Your task to perform on an android device: Open calendar and show me the third week of next month Image 0: 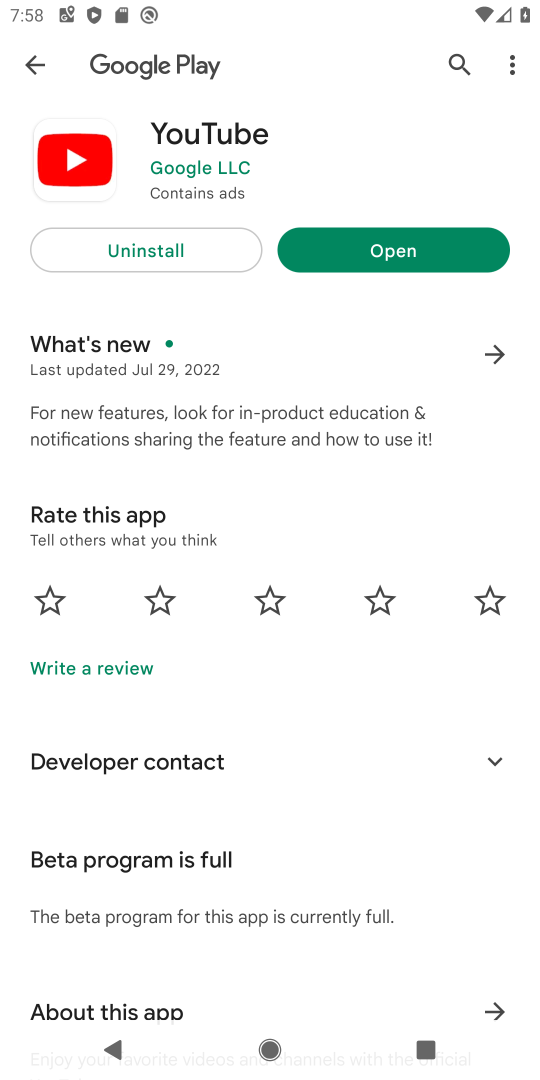
Step 0: press home button
Your task to perform on an android device: Open calendar and show me the third week of next month Image 1: 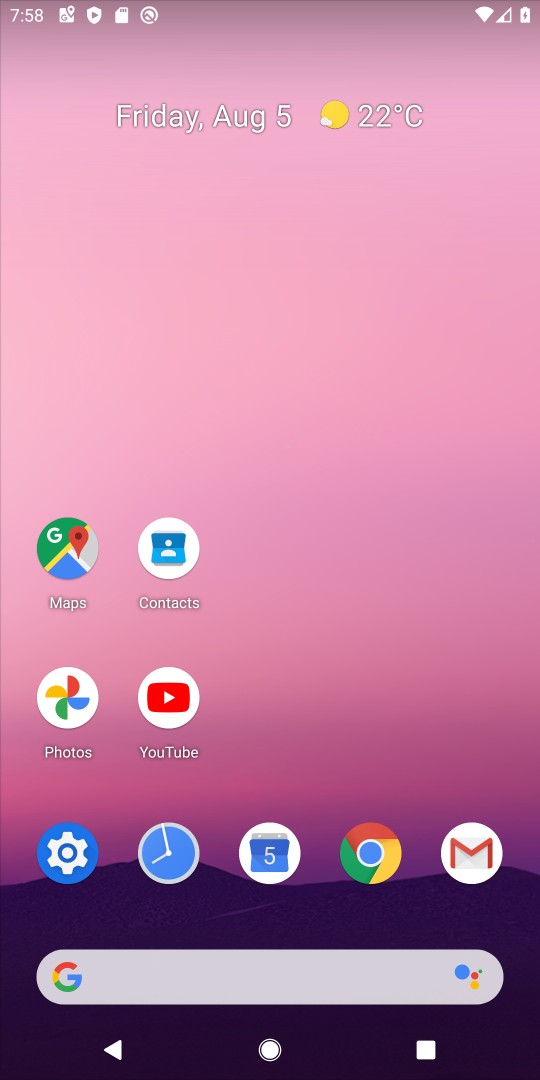
Step 1: click (263, 838)
Your task to perform on an android device: Open calendar and show me the third week of next month Image 2: 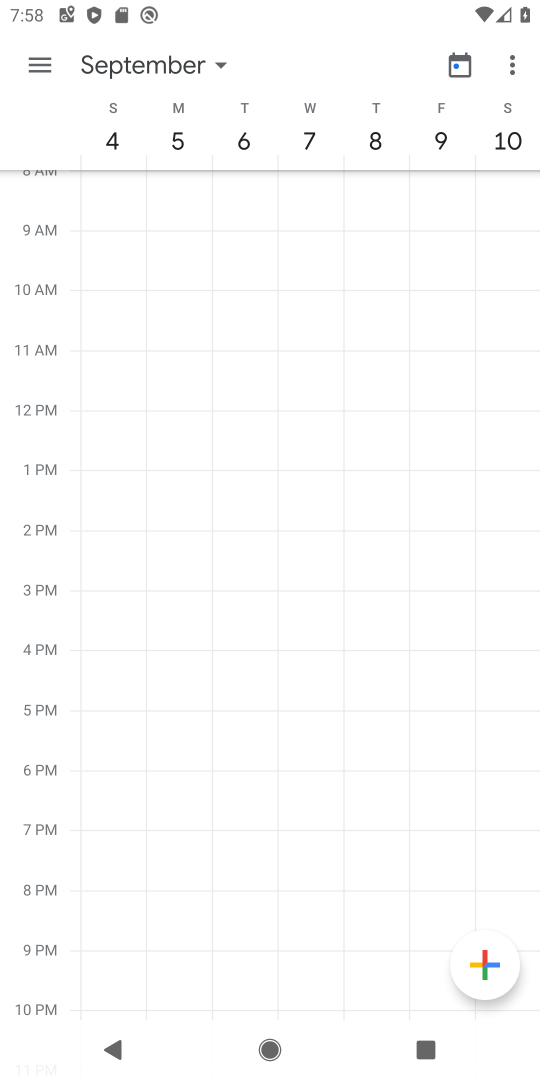
Step 2: click (206, 61)
Your task to perform on an android device: Open calendar and show me the third week of next month Image 3: 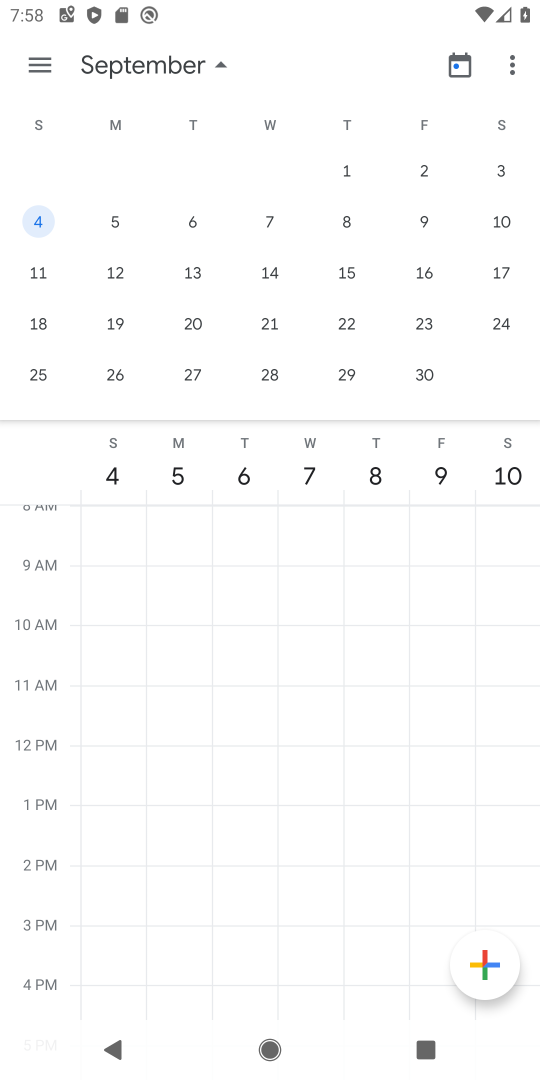
Step 3: click (109, 271)
Your task to perform on an android device: Open calendar and show me the third week of next month Image 4: 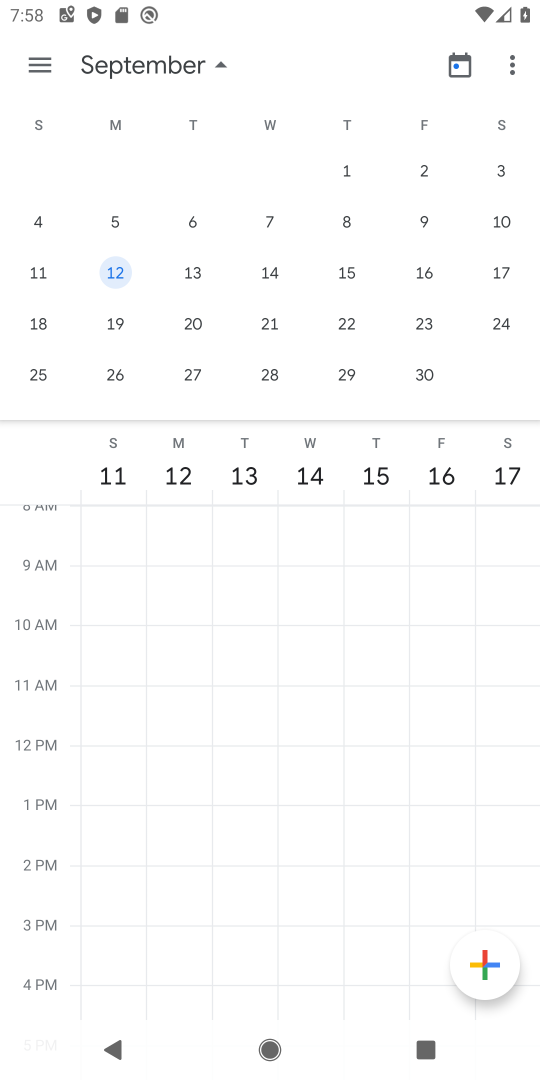
Step 4: task complete